Your task to perform on an android device: turn off notifications in google photos Image 0: 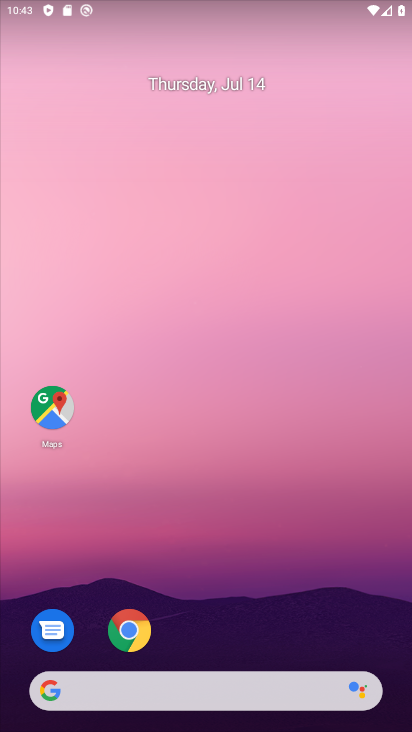
Step 0: drag from (160, 597) to (176, 416)
Your task to perform on an android device: turn off notifications in google photos Image 1: 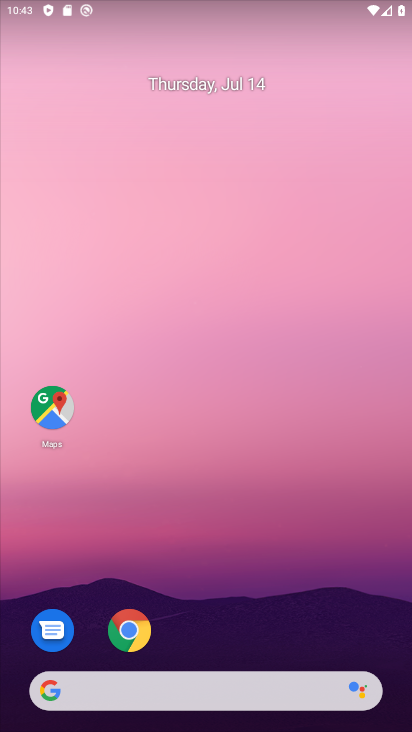
Step 1: drag from (192, 688) to (255, 249)
Your task to perform on an android device: turn off notifications in google photos Image 2: 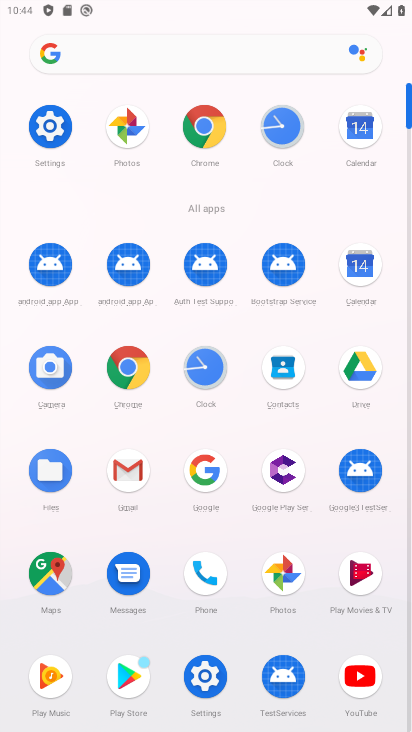
Step 2: click (285, 577)
Your task to perform on an android device: turn off notifications in google photos Image 3: 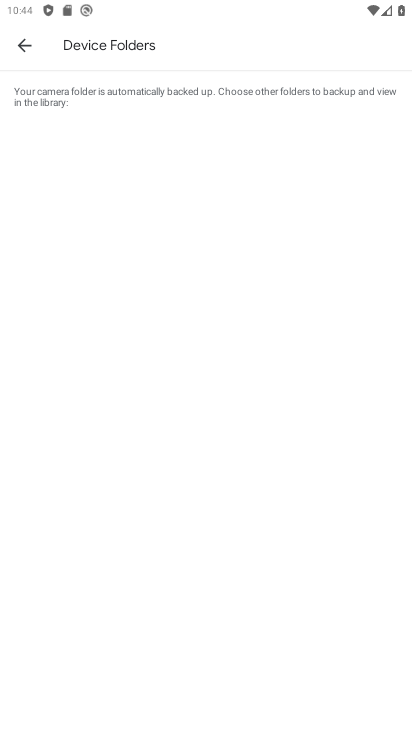
Step 3: click (33, 41)
Your task to perform on an android device: turn off notifications in google photos Image 4: 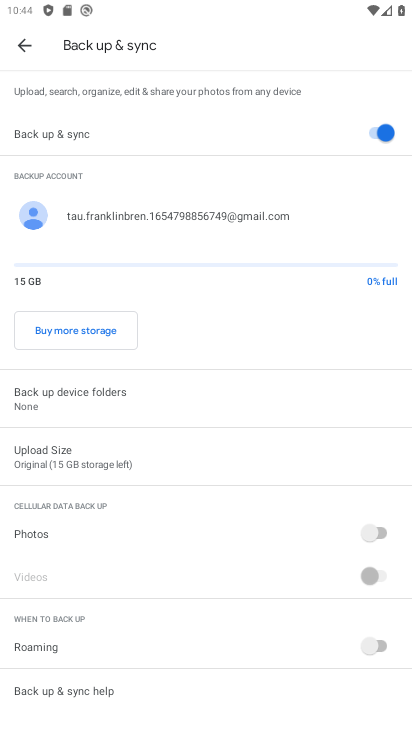
Step 4: click (22, 44)
Your task to perform on an android device: turn off notifications in google photos Image 5: 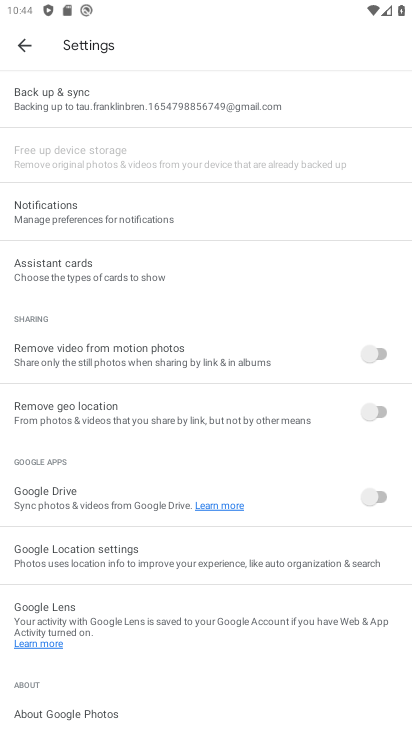
Step 5: click (90, 201)
Your task to perform on an android device: turn off notifications in google photos Image 6: 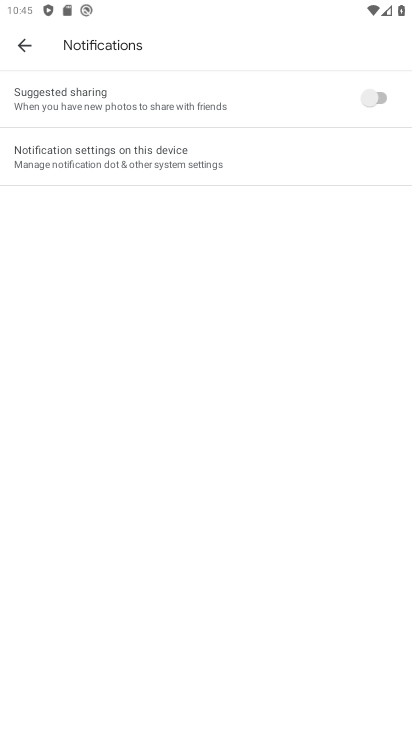
Step 6: click (182, 146)
Your task to perform on an android device: turn off notifications in google photos Image 7: 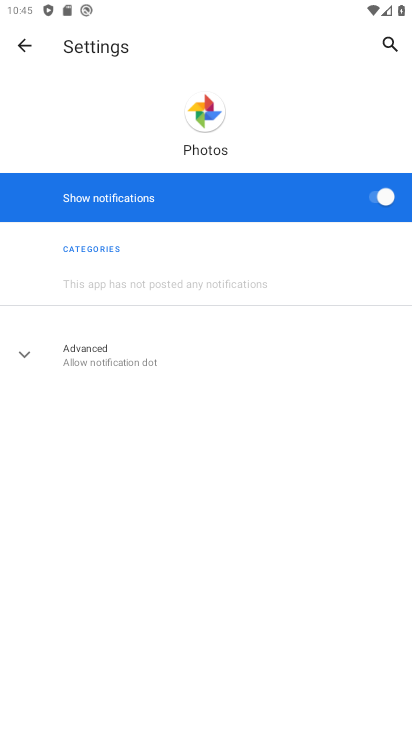
Step 7: click (379, 202)
Your task to perform on an android device: turn off notifications in google photos Image 8: 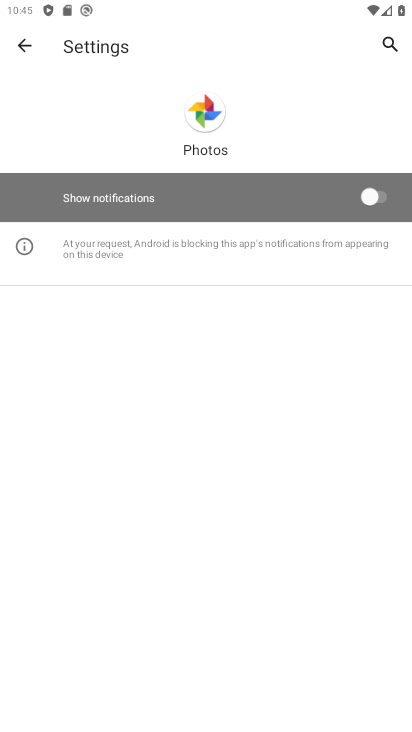
Step 8: task complete